Your task to perform on an android device: search for starred emails in the gmail app Image 0: 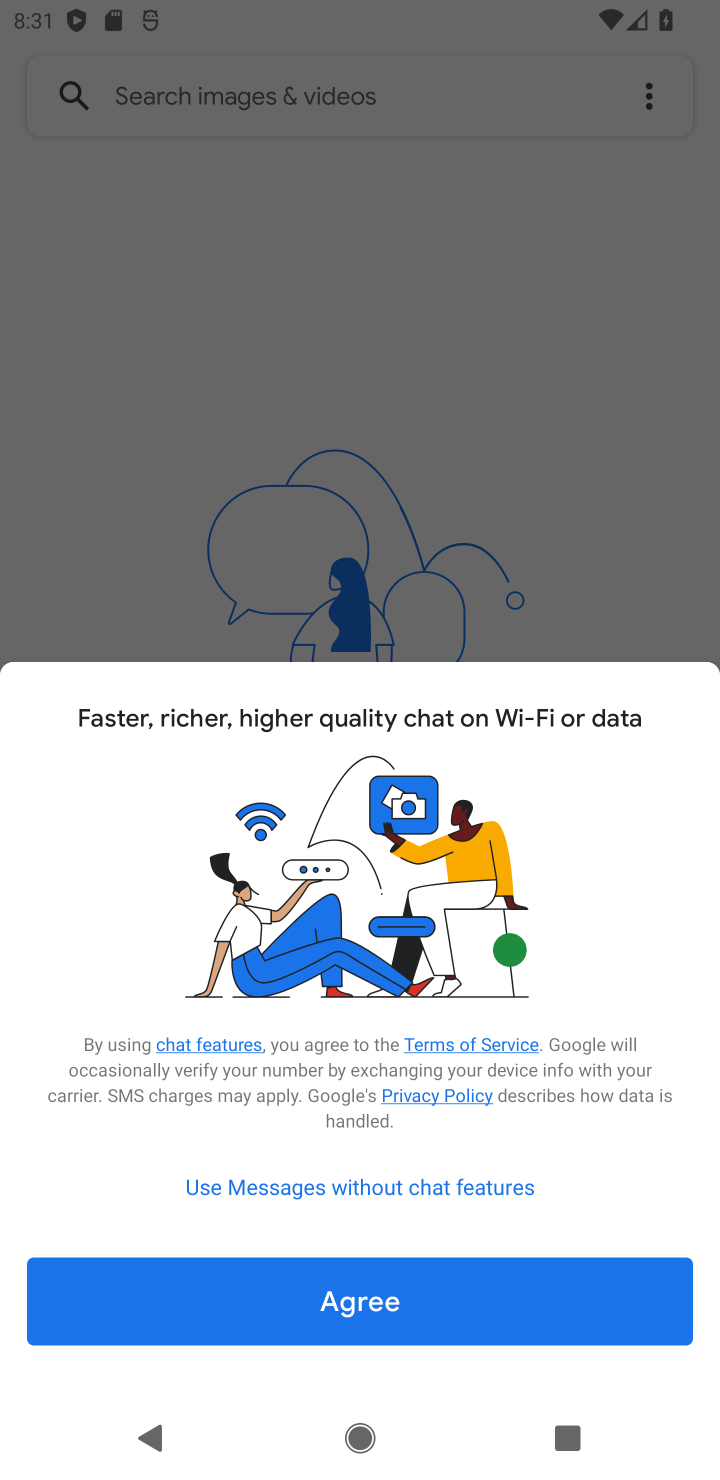
Step 0: press home button
Your task to perform on an android device: search for starred emails in the gmail app Image 1: 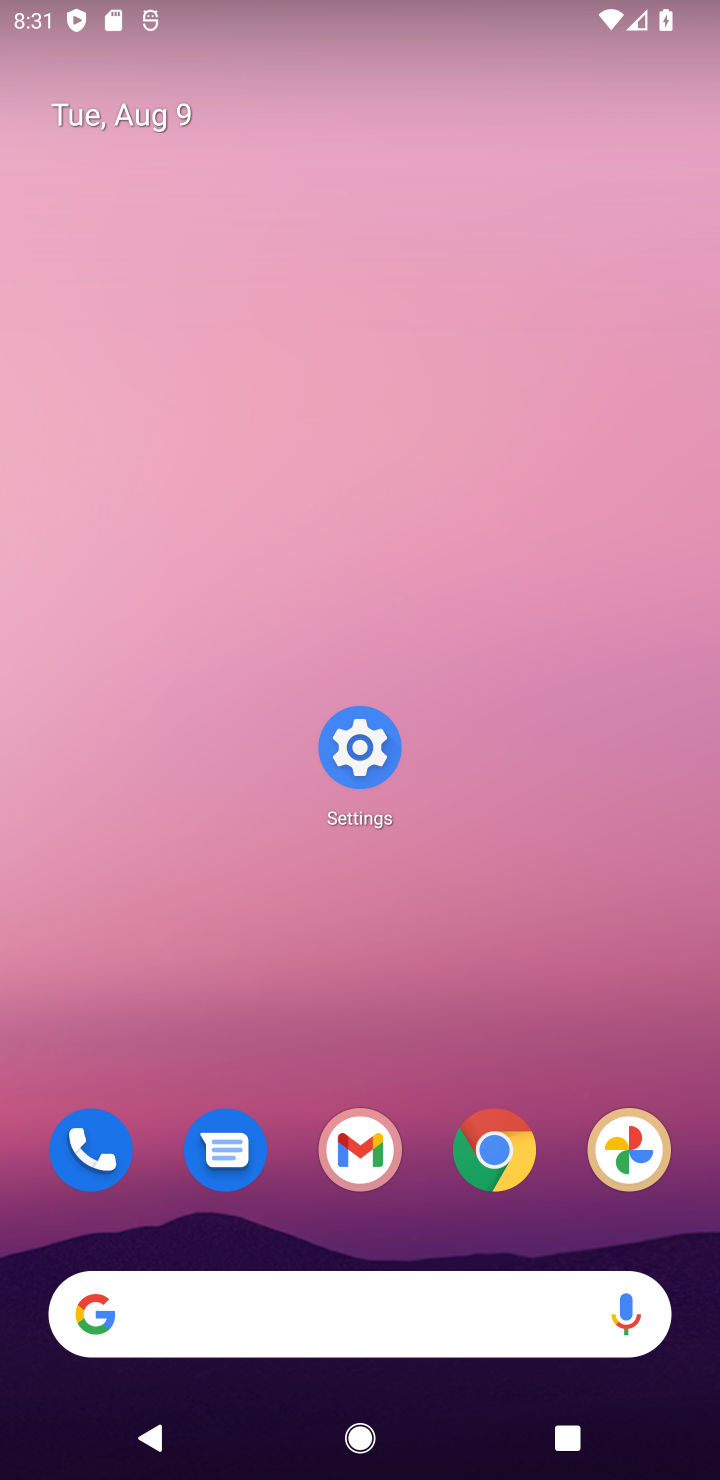
Step 1: click (343, 1138)
Your task to perform on an android device: search for starred emails in the gmail app Image 2: 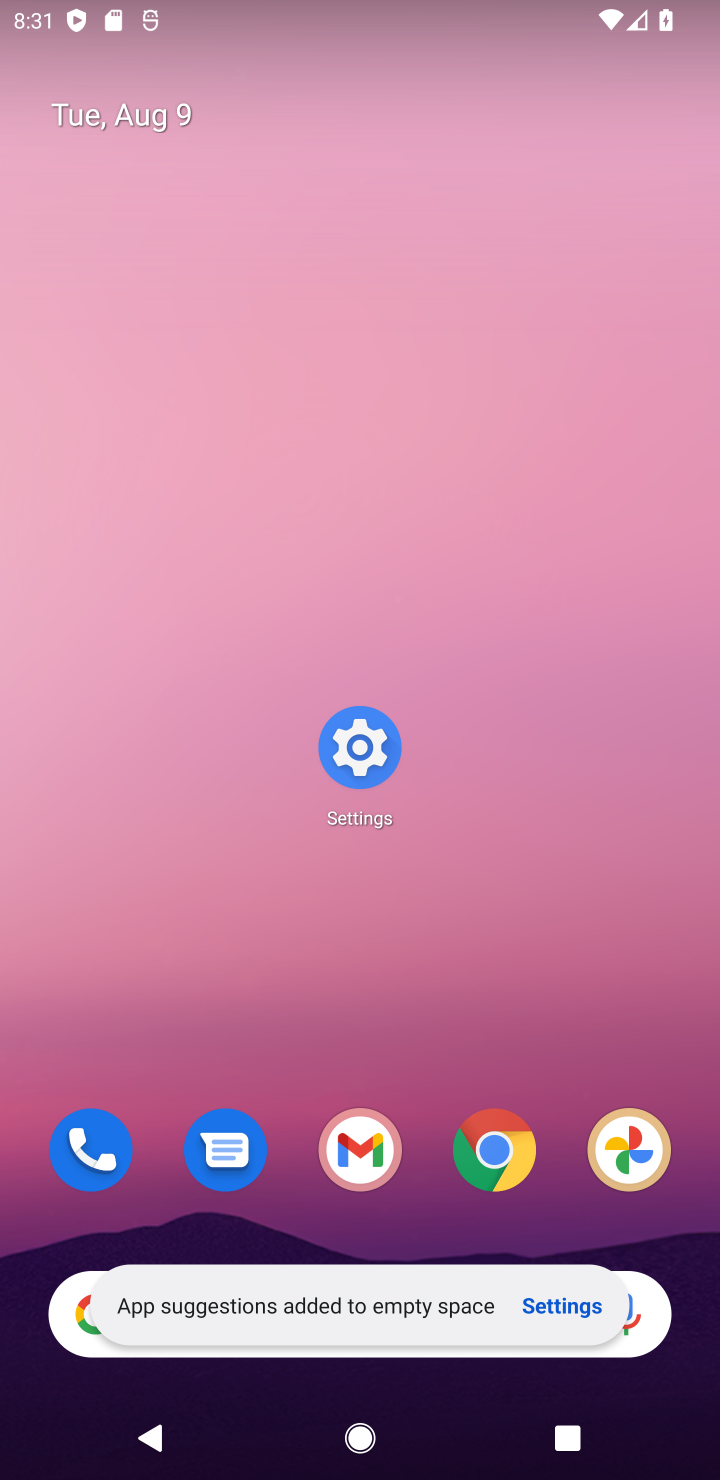
Step 2: click (364, 1150)
Your task to perform on an android device: search for starred emails in the gmail app Image 3: 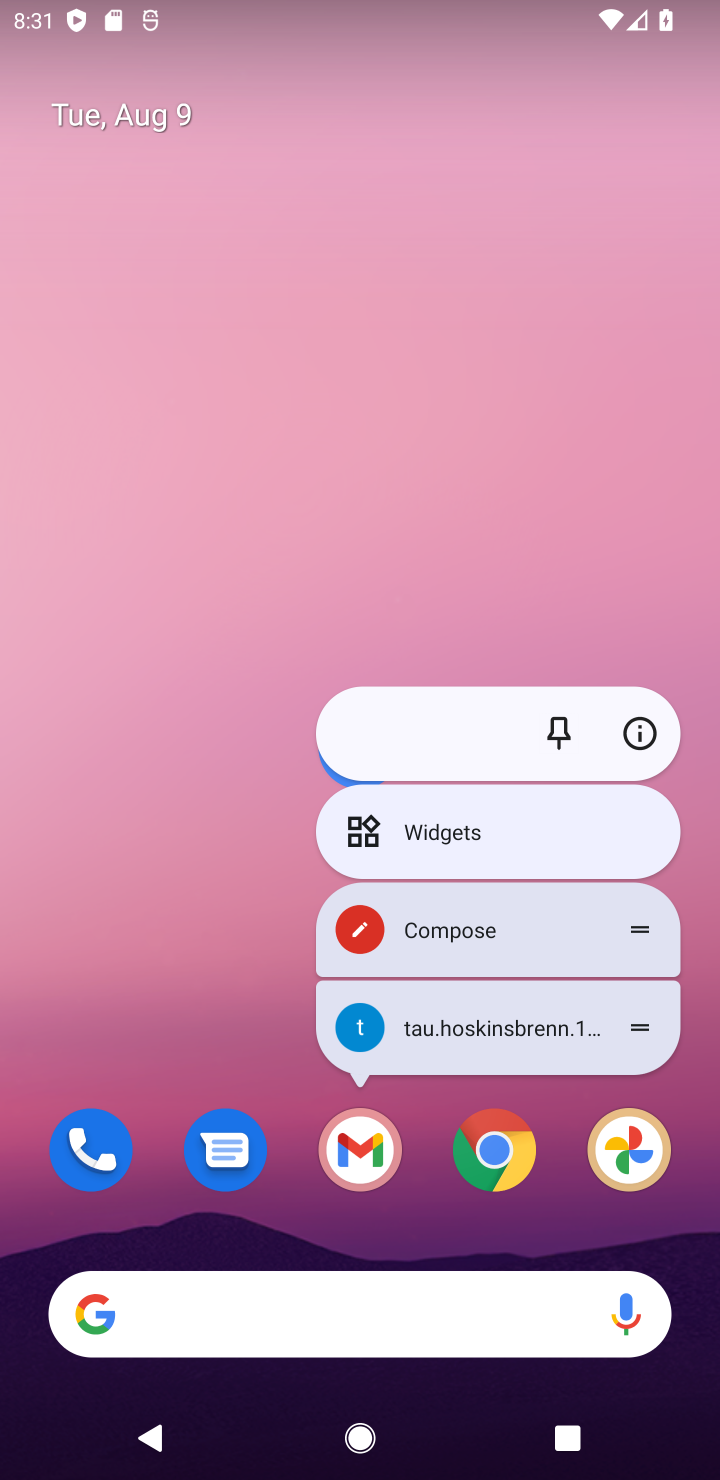
Step 3: click (364, 1156)
Your task to perform on an android device: search for starred emails in the gmail app Image 4: 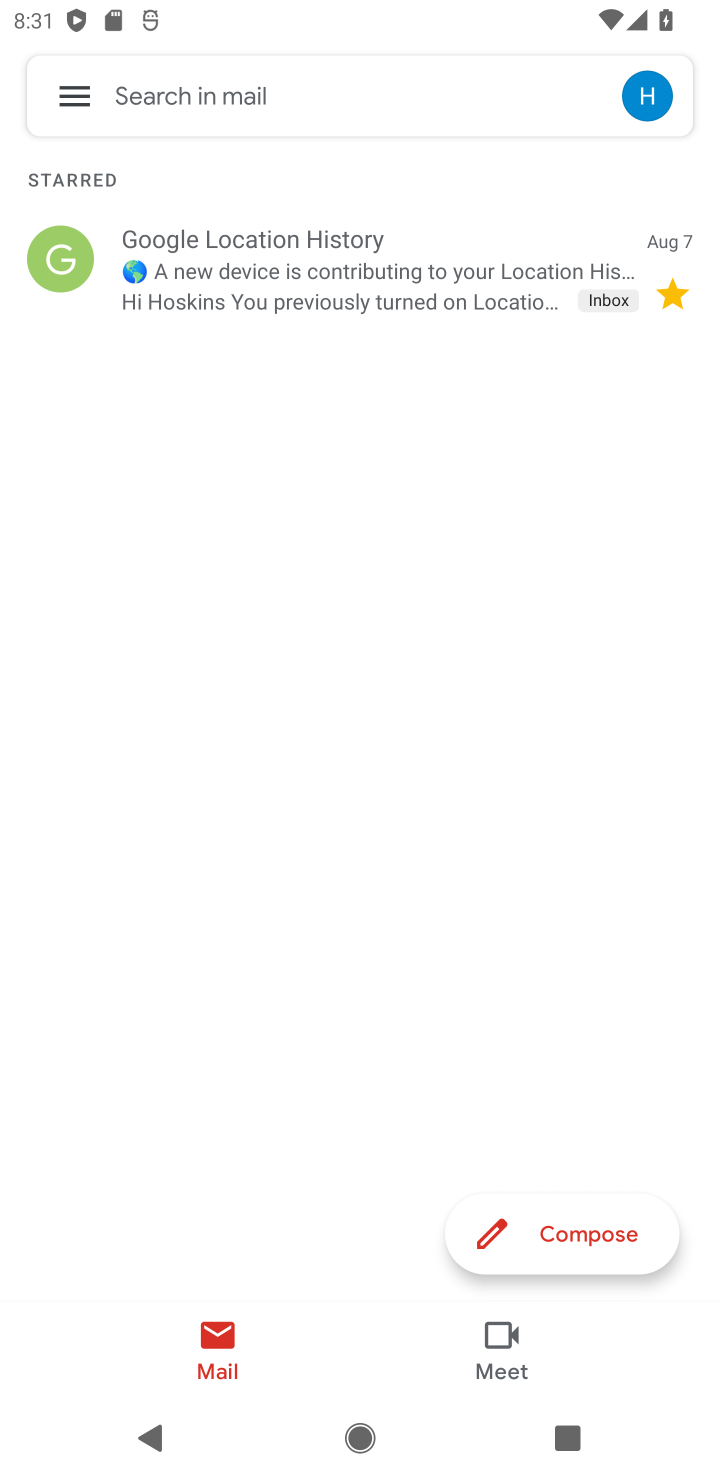
Step 4: task complete